Your task to perform on an android device: remove spam from my inbox in the gmail app Image 0: 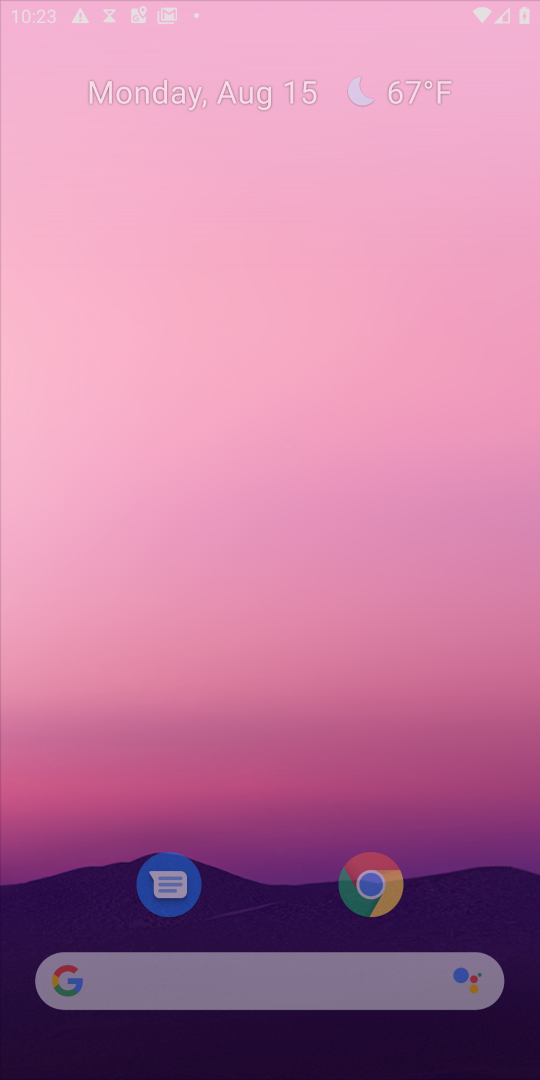
Step 0: press home button
Your task to perform on an android device: remove spam from my inbox in the gmail app Image 1: 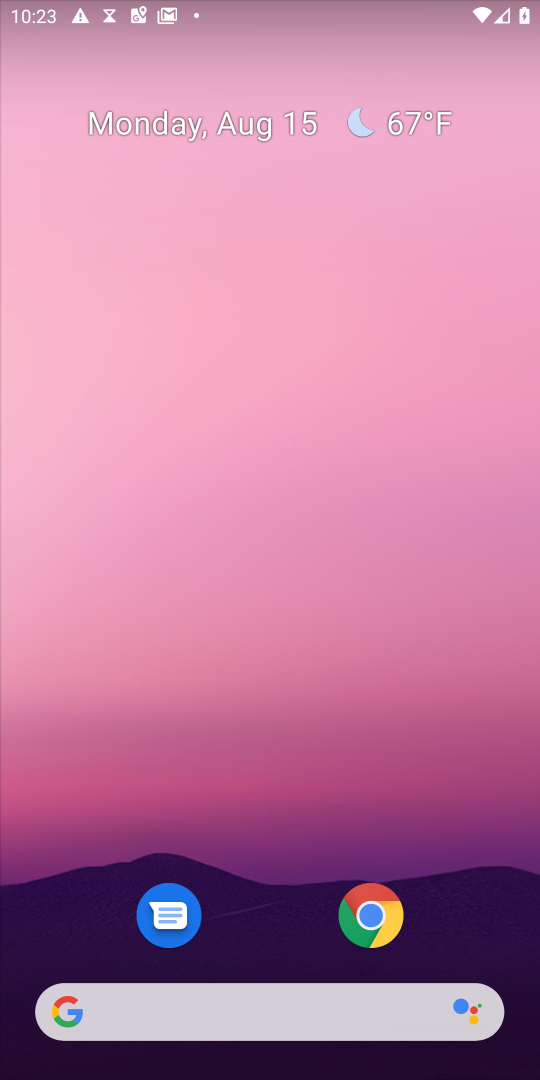
Step 1: drag from (273, 942) to (246, 112)
Your task to perform on an android device: remove spam from my inbox in the gmail app Image 2: 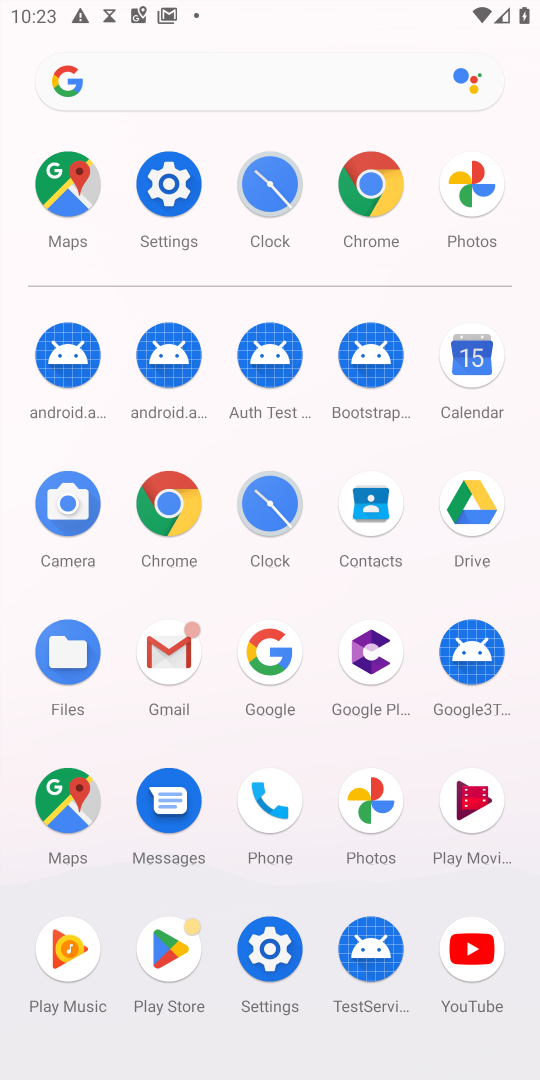
Step 2: click (166, 641)
Your task to perform on an android device: remove spam from my inbox in the gmail app Image 3: 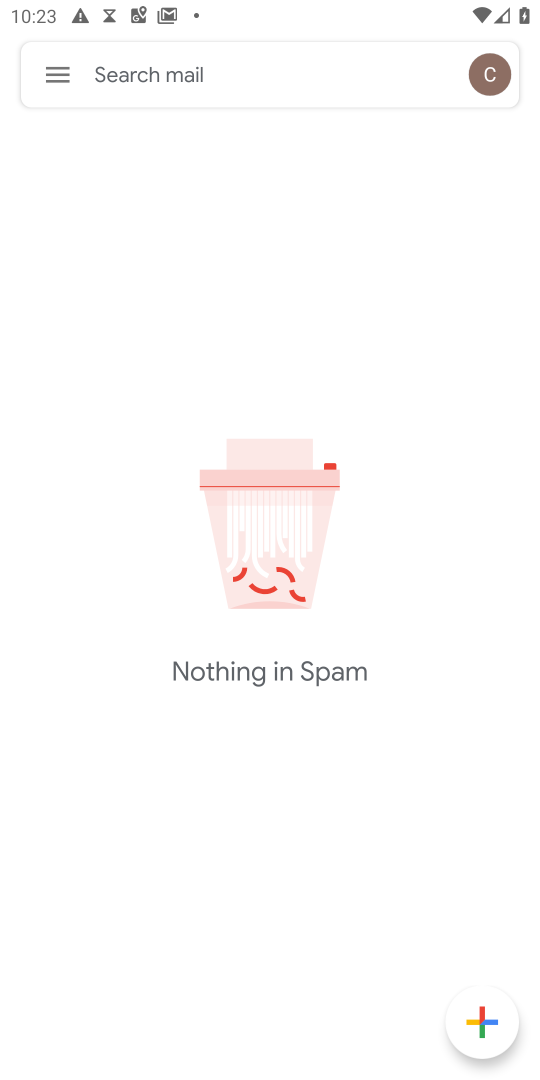
Step 3: click (54, 74)
Your task to perform on an android device: remove spam from my inbox in the gmail app Image 4: 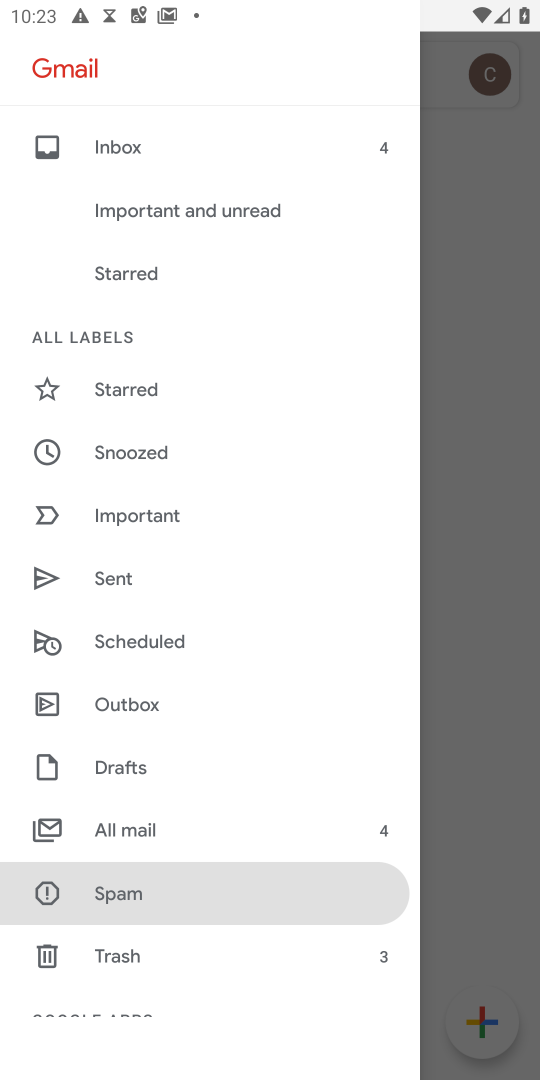
Step 4: click (106, 148)
Your task to perform on an android device: remove spam from my inbox in the gmail app Image 5: 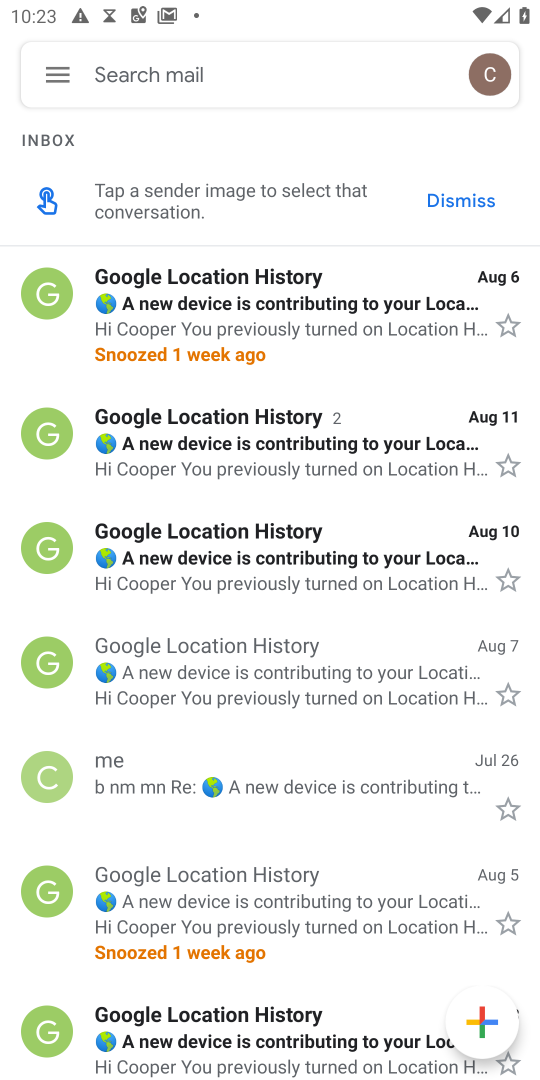
Step 5: click (272, 286)
Your task to perform on an android device: remove spam from my inbox in the gmail app Image 6: 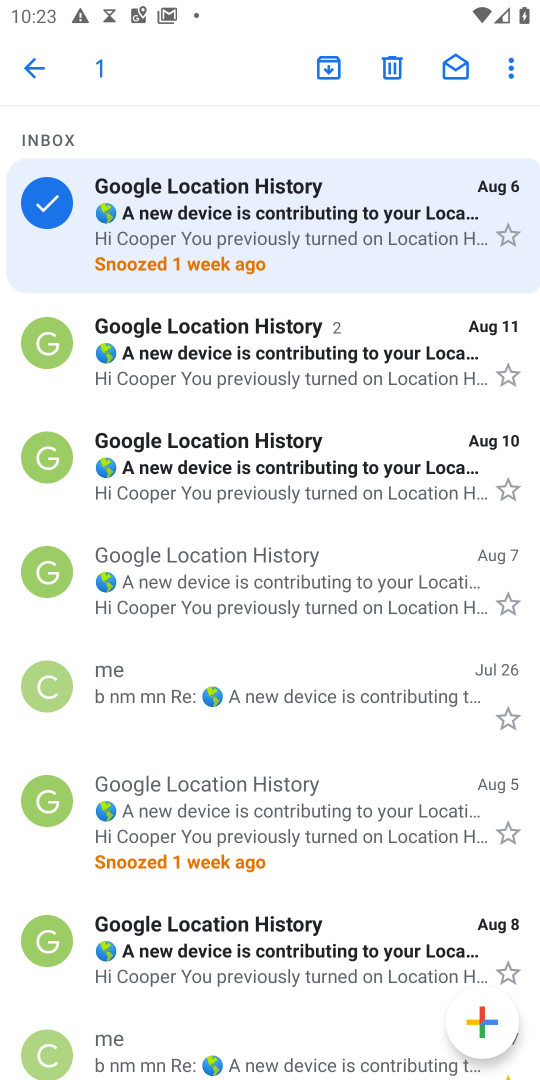
Step 6: click (517, 65)
Your task to perform on an android device: remove spam from my inbox in the gmail app Image 7: 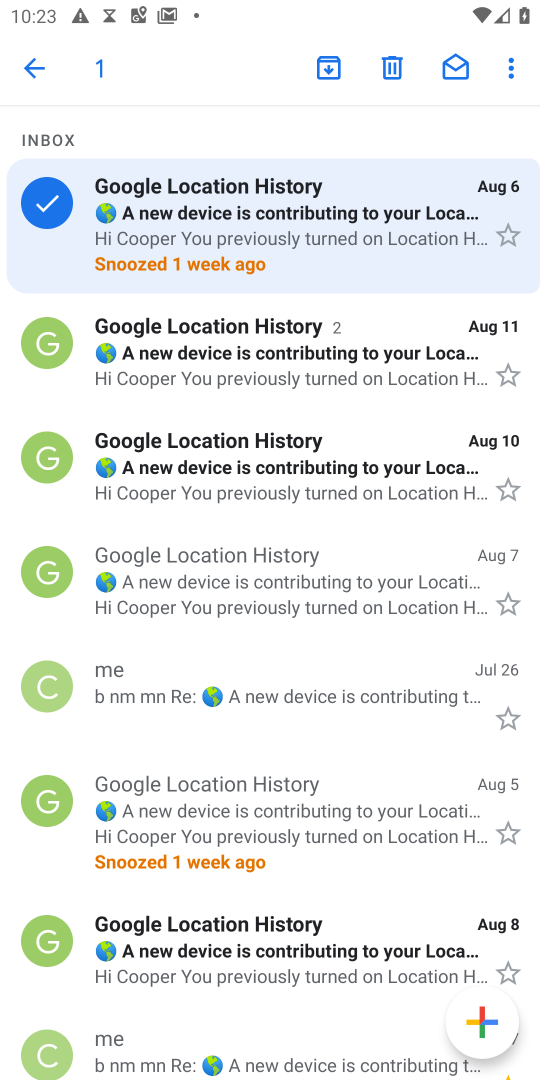
Step 7: click (512, 76)
Your task to perform on an android device: remove spam from my inbox in the gmail app Image 8: 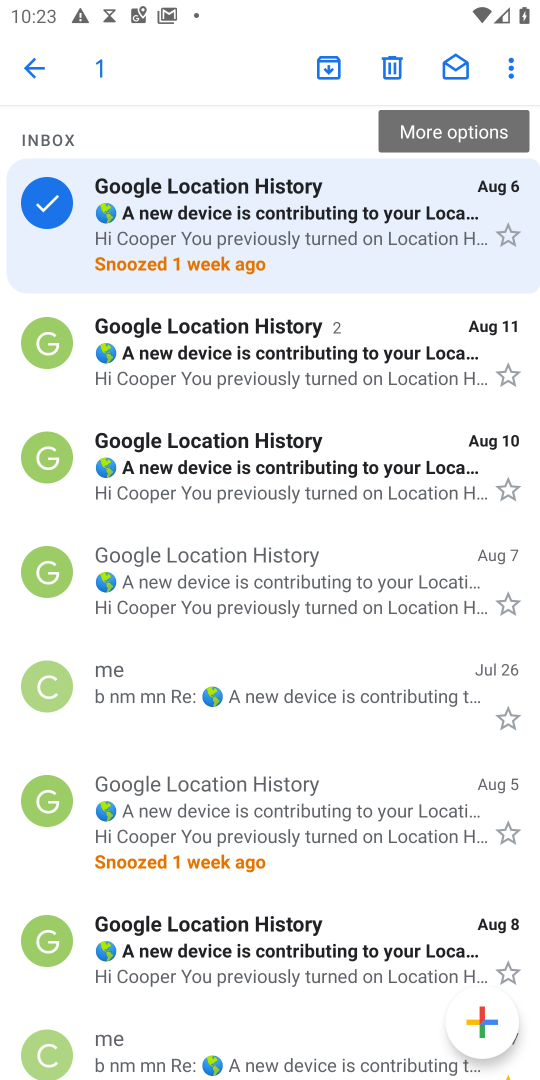
Step 8: click (512, 76)
Your task to perform on an android device: remove spam from my inbox in the gmail app Image 9: 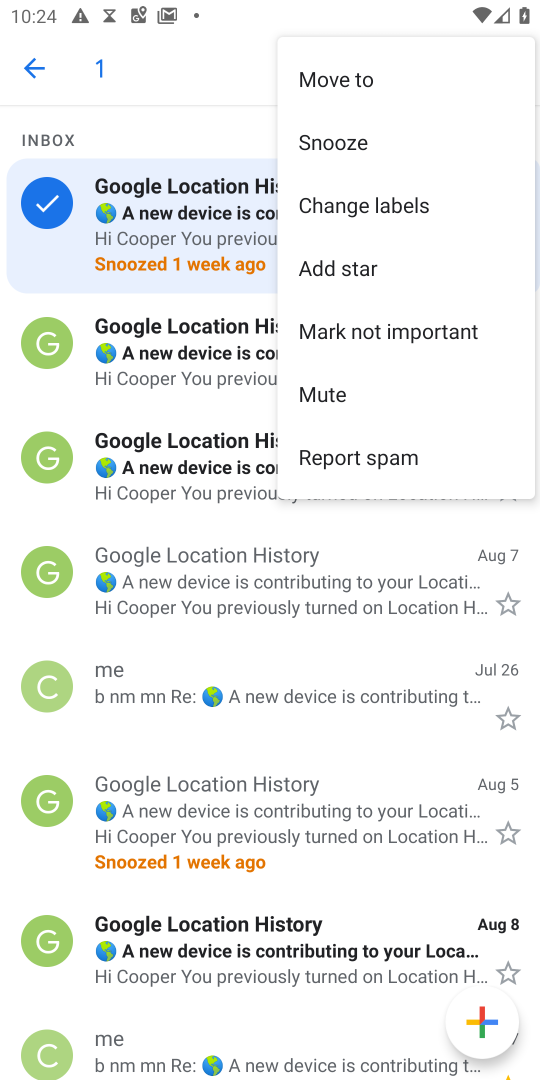
Step 9: click (48, 352)
Your task to perform on an android device: remove spam from my inbox in the gmail app Image 10: 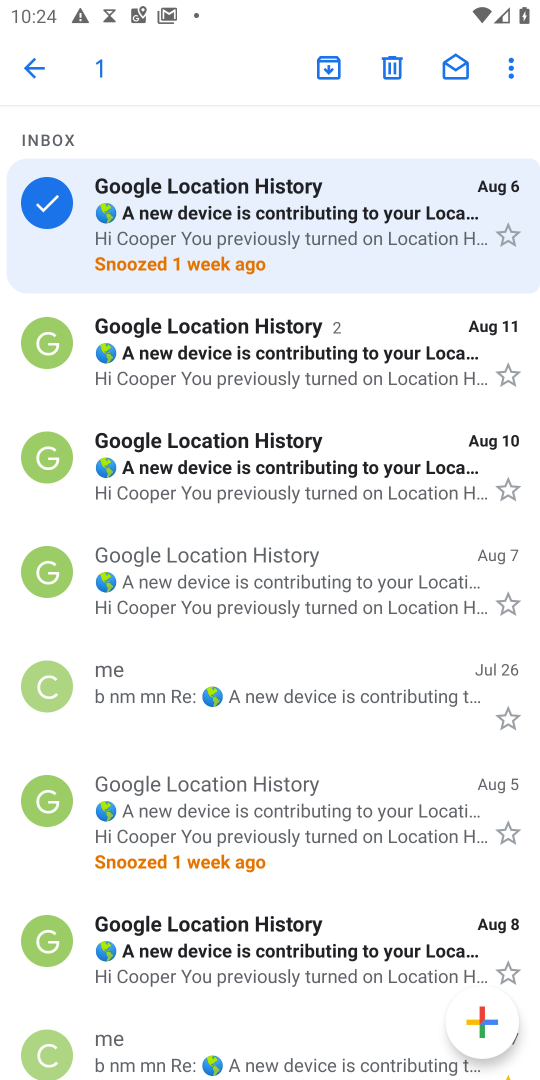
Step 10: click (45, 356)
Your task to perform on an android device: remove spam from my inbox in the gmail app Image 11: 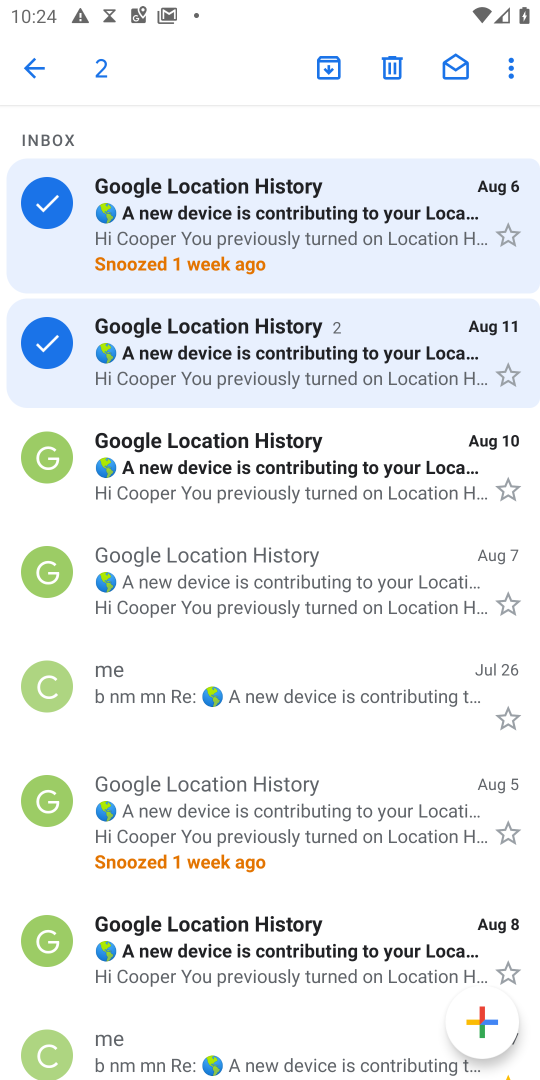
Step 11: click (511, 61)
Your task to perform on an android device: remove spam from my inbox in the gmail app Image 12: 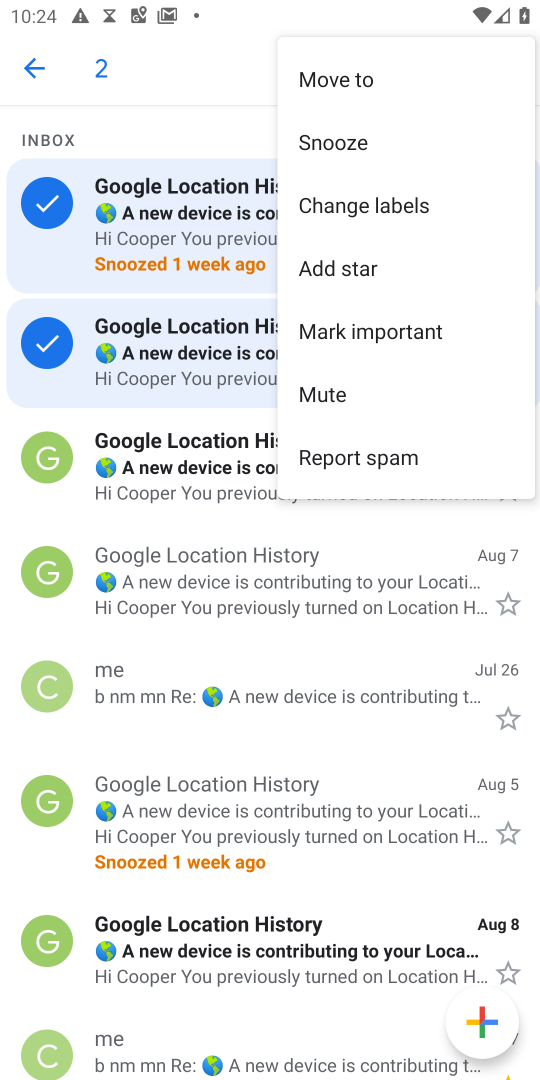
Step 12: click (383, 451)
Your task to perform on an android device: remove spam from my inbox in the gmail app Image 13: 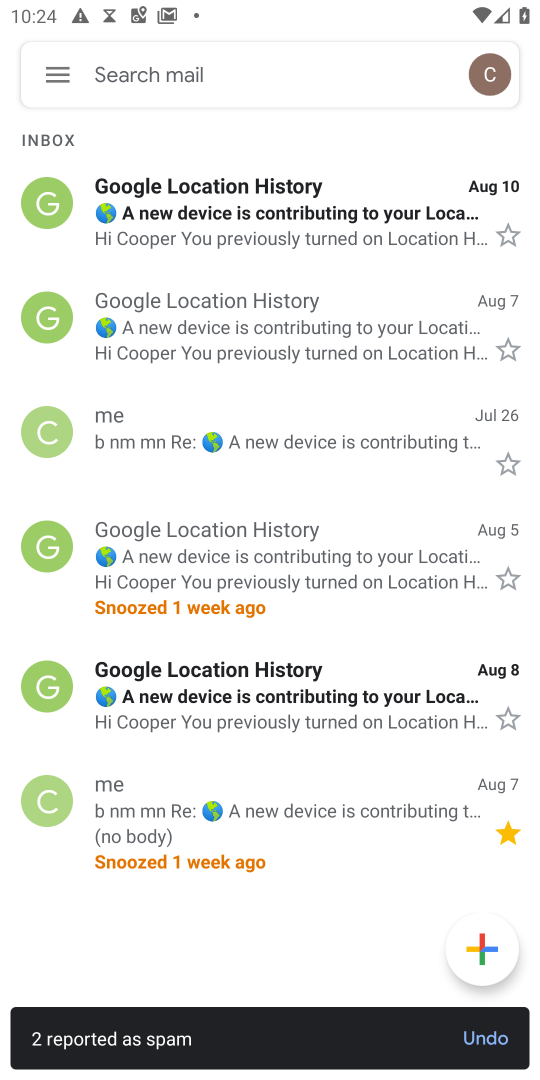
Step 13: task complete